Your task to perform on an android device: Toggle the flashlight Image 0: 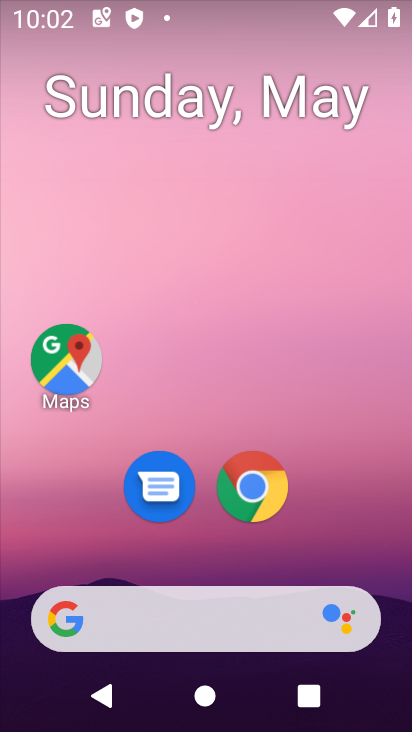
Step 0: drag from (324, 525) to (236, 122)
Your task to perform on an android device: Toggle the flashlight Image 1: 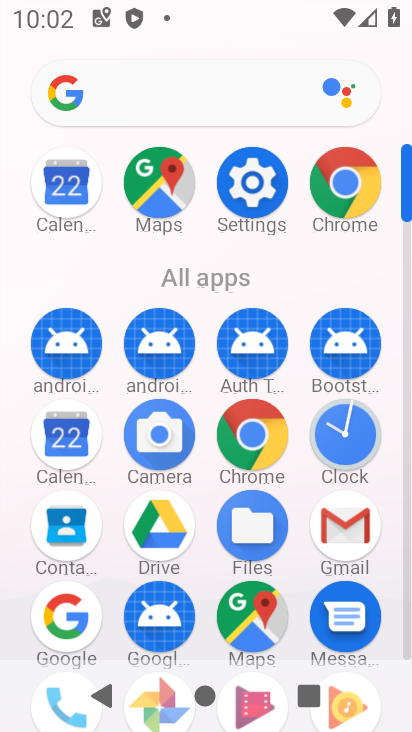
Step 1: click (252, 185)
Your task to perform on an android device: Toggle the flashlight Image 2: 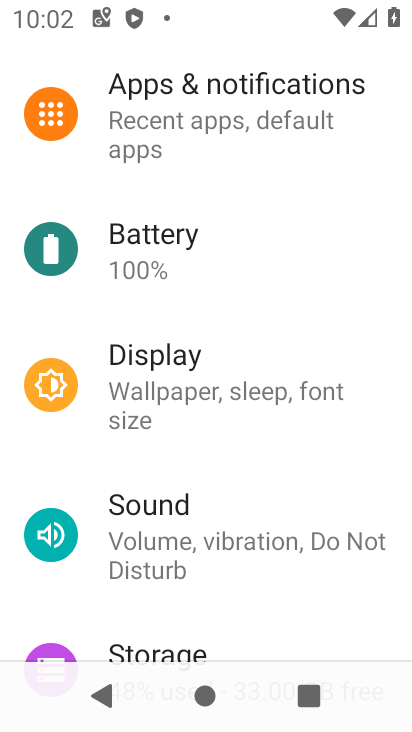
Step 2: drag from (221, 481) to (218, 323)
Your task to perform on an android device: Toggle the flashlight Image 3: 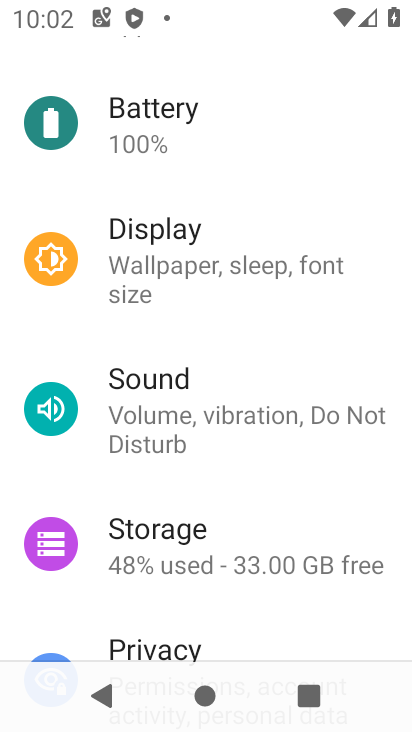
Step 3: drag from (209, 479) to (234, 376)
Your task to perform on an android device: Toggle the flashlight Image 4: 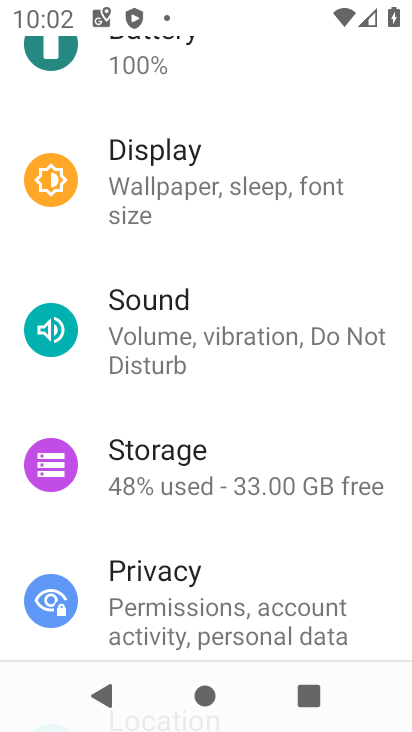
Step 4: drag from (252, 541) to (250, 442)
Your task to perform on an android device: Toggle the flashlight Image 5: 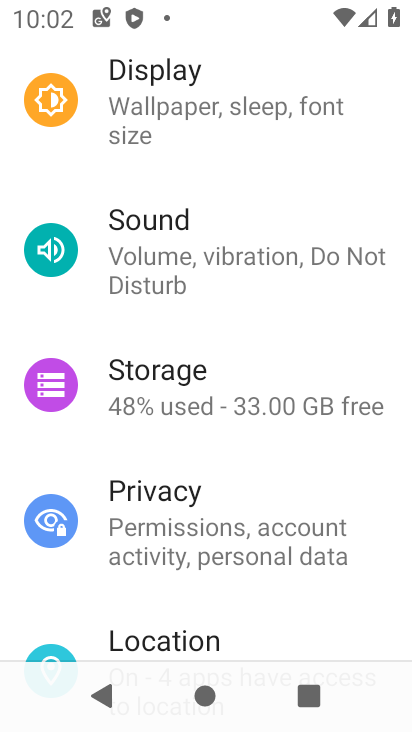
Step 5: drag from (202, 591) to (202, 417)
Your task to perform on an android device: Toggle the flashlight Image 6: 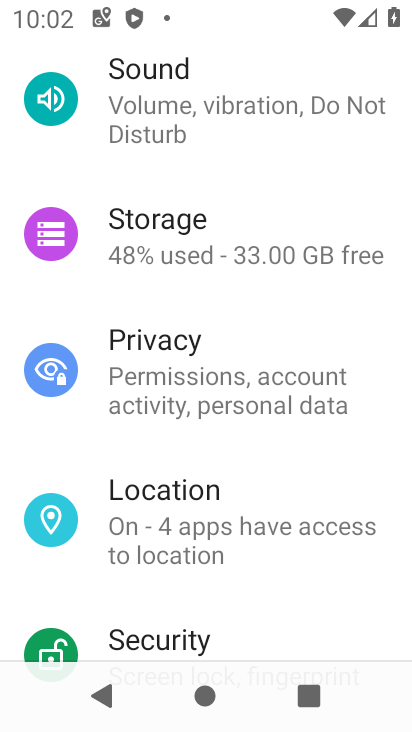
Step 6: drag from (226, 544) to (243, 428)
Your task to perform on an android device: Toggle the flashlight Image 7: 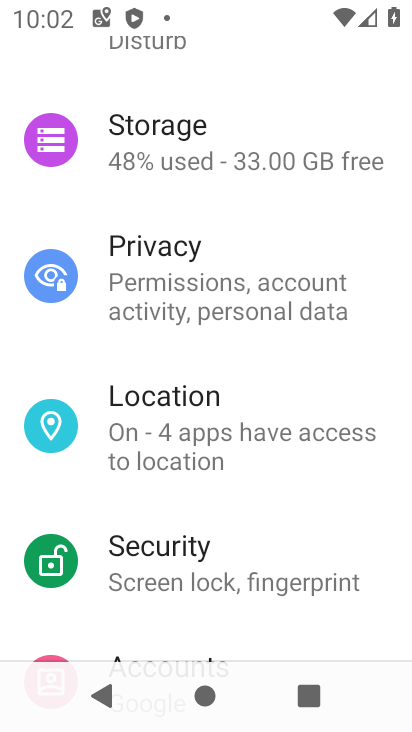
Step 7: drag from (220, 562) to (232, 484)
Your task to perform on an android device: Toggle the flashlight Image 8: 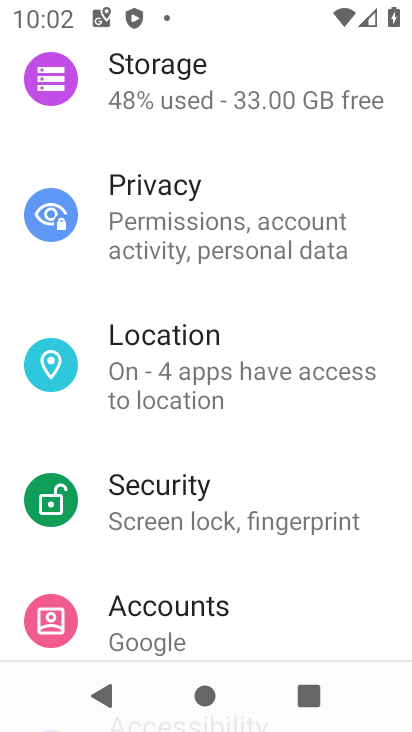
Step 8: drag from (235, 569) to (258, 434)
Your task to perform on an android device: Toggle the flashlight Image 9: 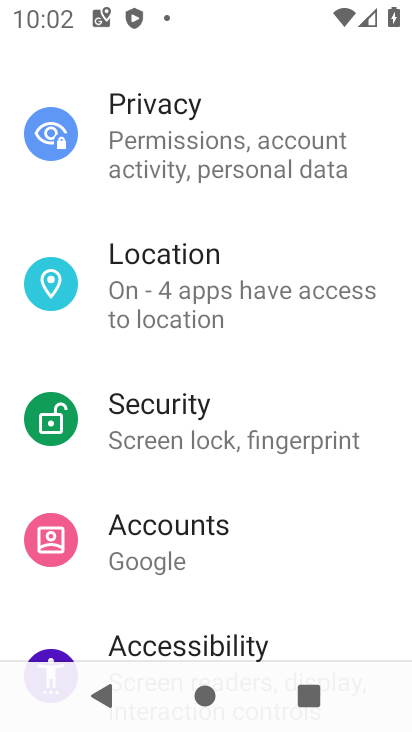
Step 9: drag from (200, 614) to (207, 505)
Your task to perform on an android device: Toggle the flashlight Image 10: 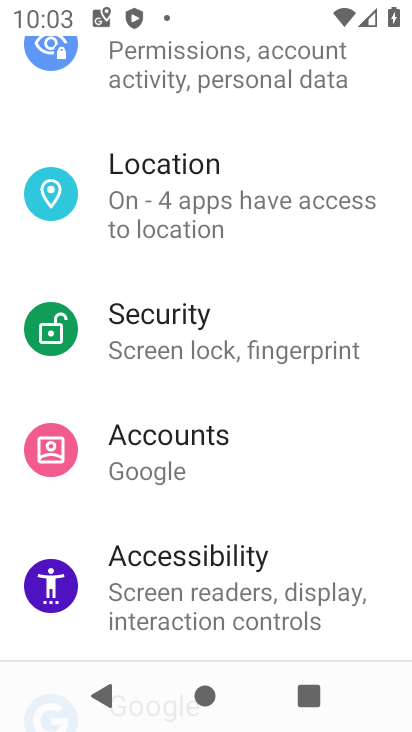
Step 10: click (206, 535)
Your task to perform on an android device: Toggle the flashlight Image 11: 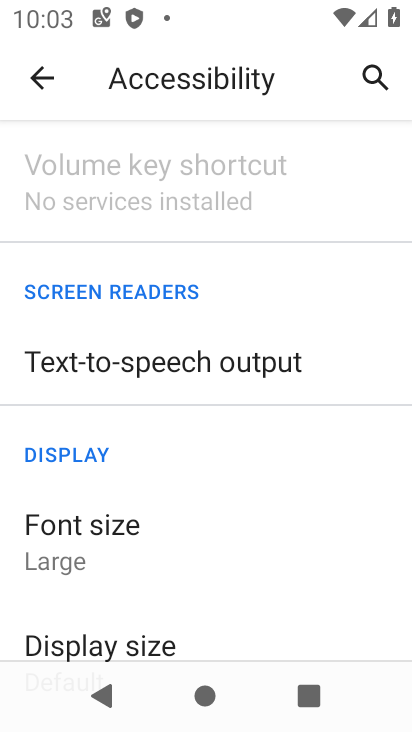
Step 11: task complete